Your task to perform on an android device: empty trash in google photos Image 0: 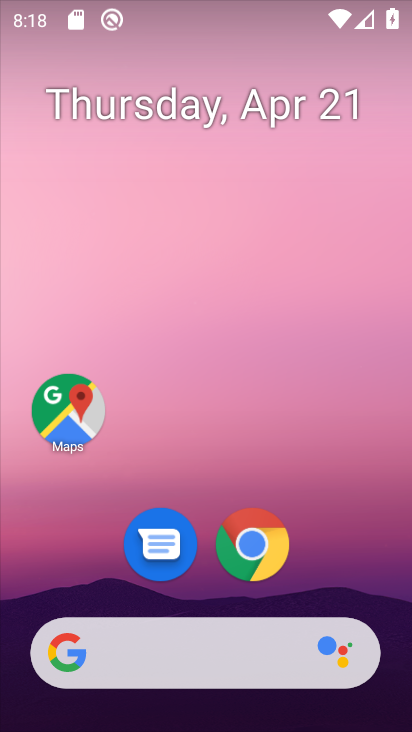
Step 0: drag from (203, 726) to (196, 202)
Your task to perform on an android device: empty trash in google photos Image 1: 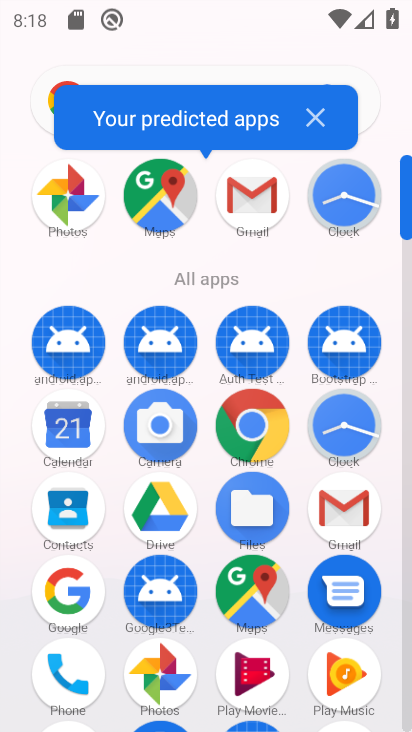
Step 1: drag from (206, 592) to (188, 242)
Your task to perform on an android device: empty trash in google photos Image 2: 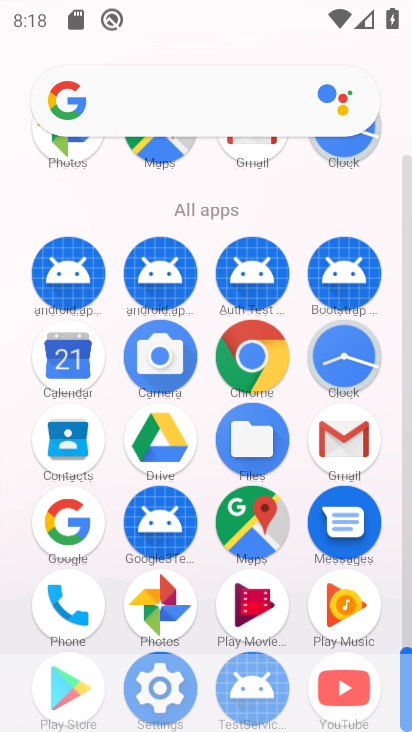
Step 2: click (169, 608)
Your task to perform on an android device: empty trash in google photos Image 3: 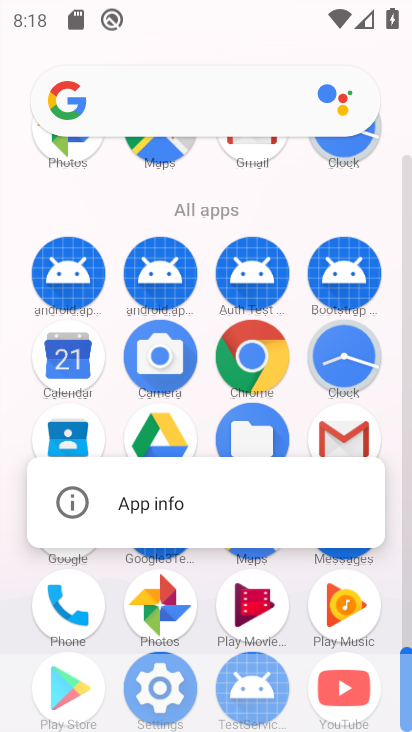
Step 3: click (166, 591)
Your task to perform on an android device: empty trash in google photos Image 4: 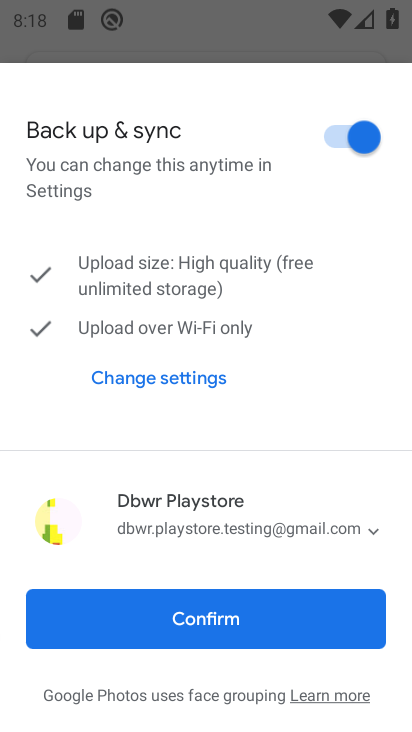
Step 4: click (189, 616)
Your task to perform on an android device: empty trash in google photos Image 5: 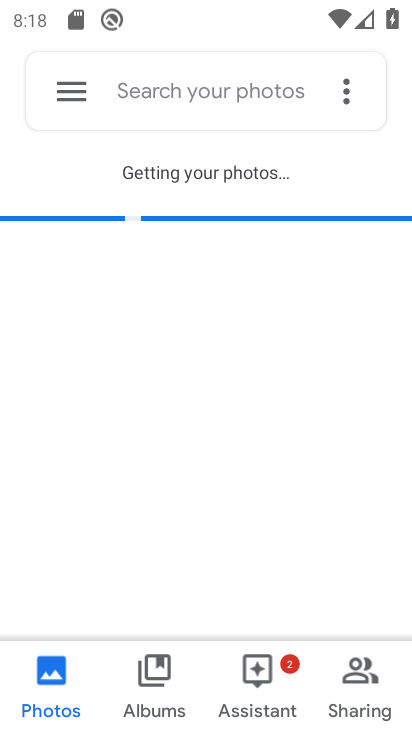
Step 5: click (75, 90)
Your task to perform on an android device: empty trash in google photos Image 6: 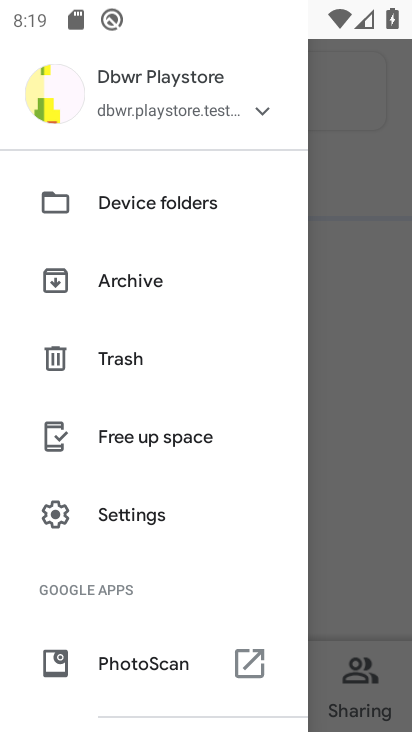
Step 6: click (105, 358)
Your task to perform on an android device: empty trash in google photos Image 7: 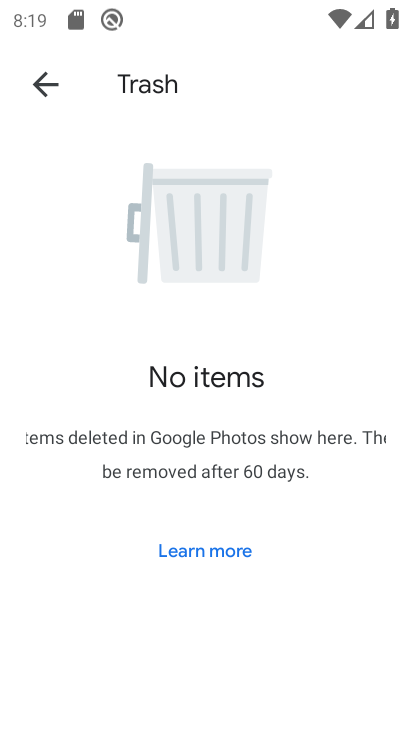
Step 7: task complete